Your task to perform on an android device: add a contact Image 0: 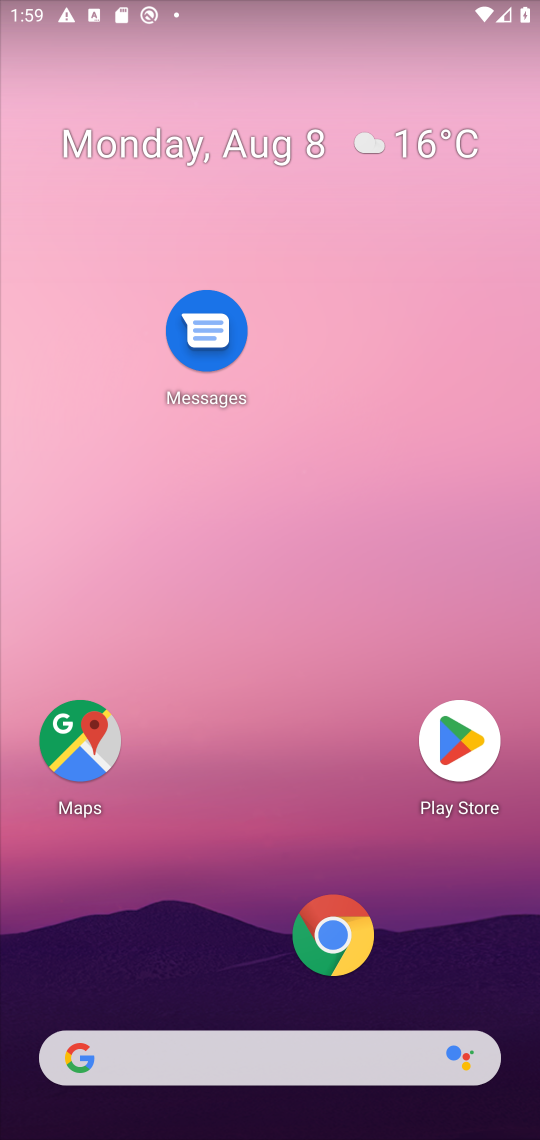
Step 0: drag from (372, 1061) to (353, 414)
Your task to perform on an android device: add a contact Image 1: 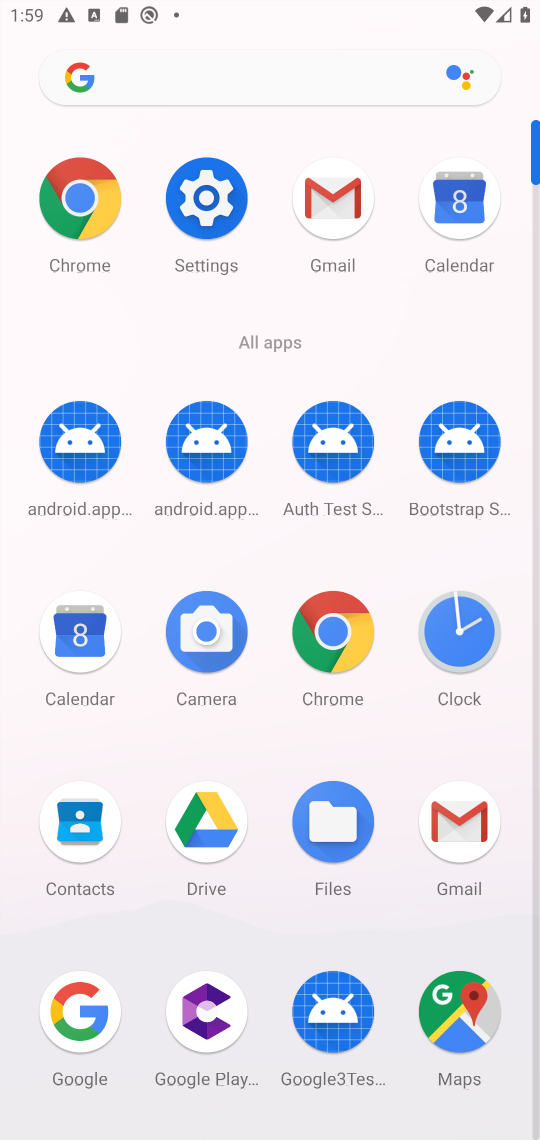
Step 1: click (78, 849)
Your task to perform on an android device: add a contact Image 2: 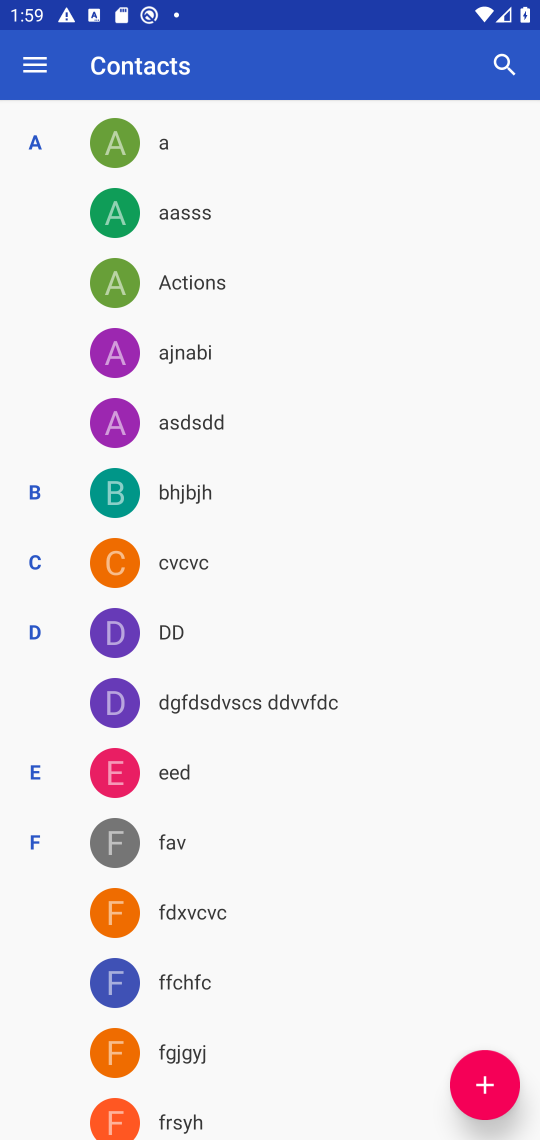
Step 2: click (508, 1092)
Your task to perform on an android device: add a contact Image 3: 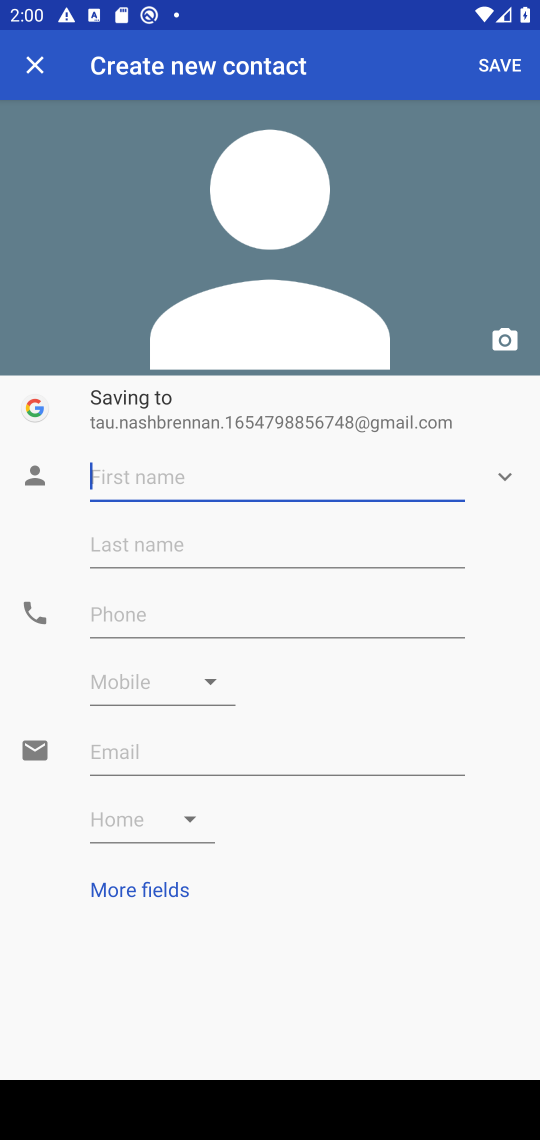
Step 3: type "jhhgfjeh"
Your task to perform on an android device: add a contact Image 4: 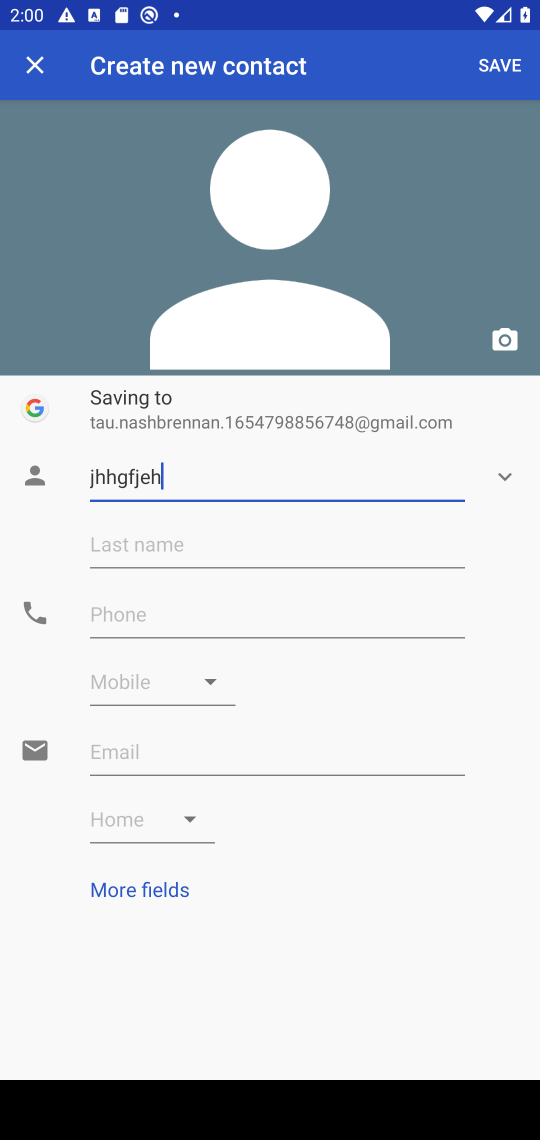
Step 4: click (456, 601)
Your task to perform on an android device: add a contact Image 5: 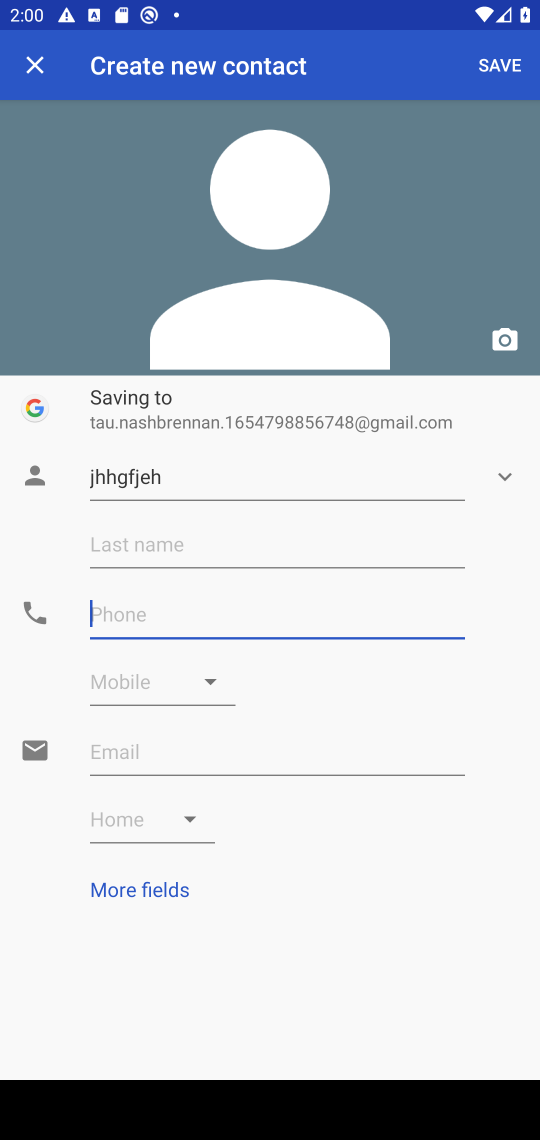
Step 5: type "09878877"
Your task to perform on an android device: add a contact Image 6: 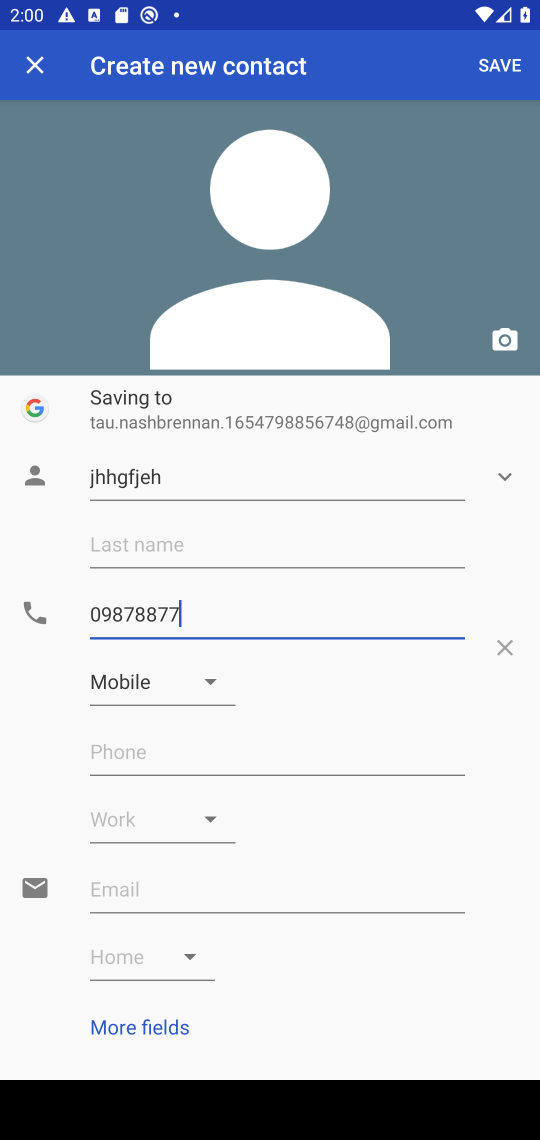
Step 6: click (495, 61)
Your task to perform on an android device: add a contact Image 7: 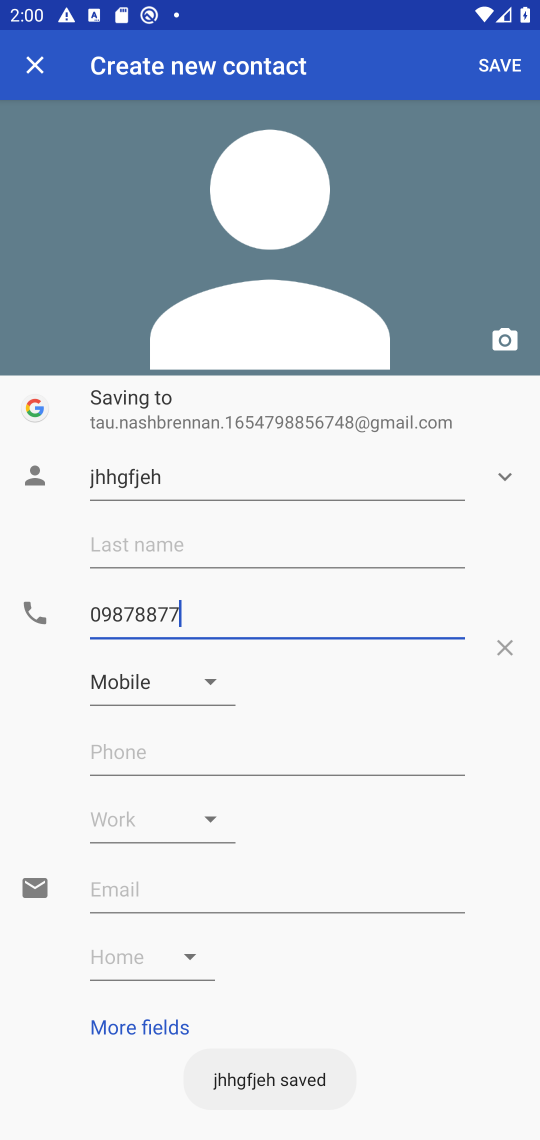
Step 7: task complete